Your task to perform on an android device: open chrome privacy settings Image 0: 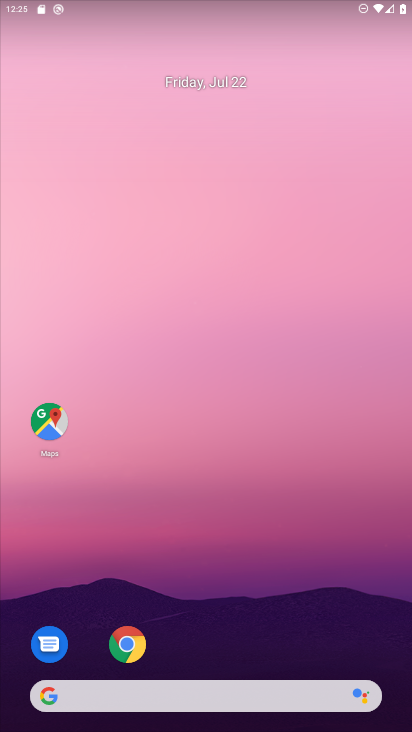
Step 0: click (132, 660)
Your task to perform on an android device: open chrome privacy settings Image 1: 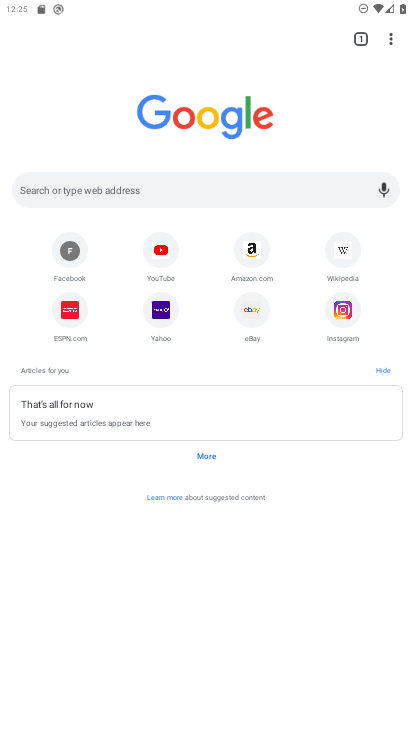
Step 1: click (395, 46)
Your task to perform on an android device: open chrome privacy settings Image 2: 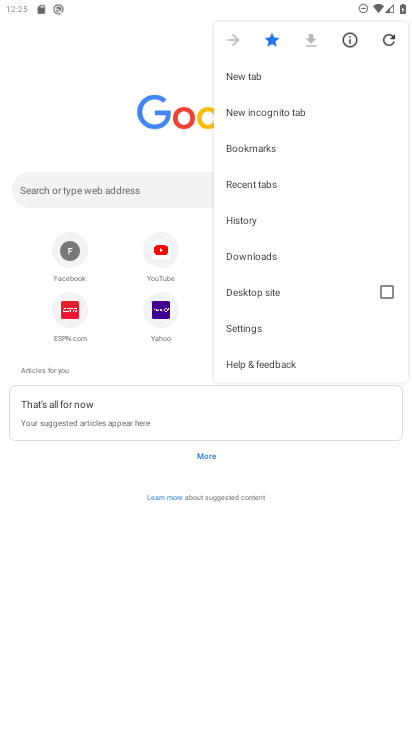
Step 2: click (234, 329)
Your task to perform on an android device: open chrome privacy settings Image 3: 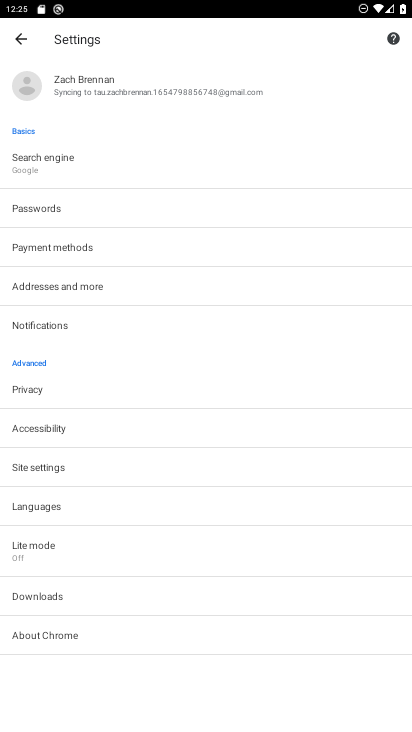
Step 3: click (45, 395)
Your task to perform on an android device: open chrome privacy settings Image 4: 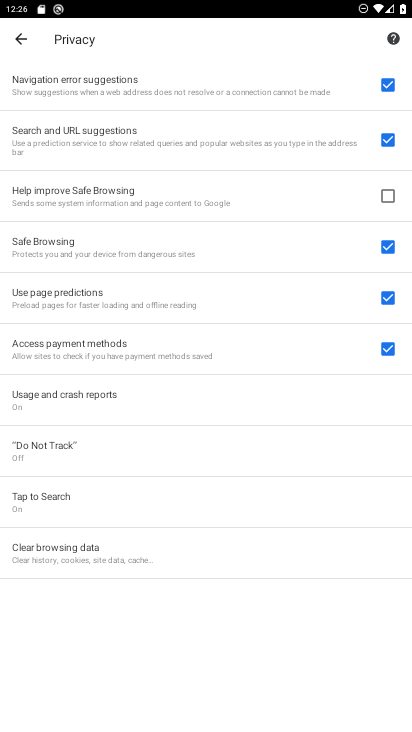
Step 4: task complete